Your task to perform on an android device: Open wifi settings Image 0: 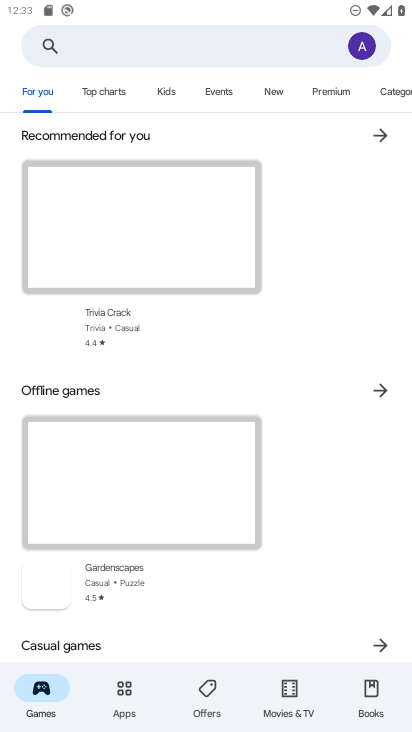
Step 0: press home button
Your task to perform on an android device: Open wifi settings Image 1: 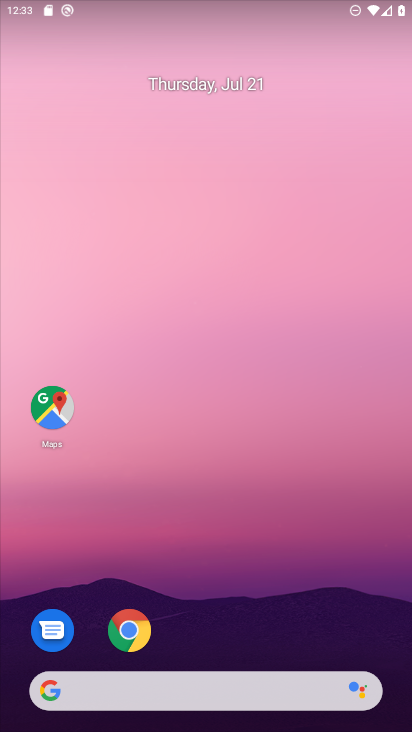
Step 1: drag from (399, 647) to (381, 222)
Your task to perform on an android device: Open wifi settings Image 2: 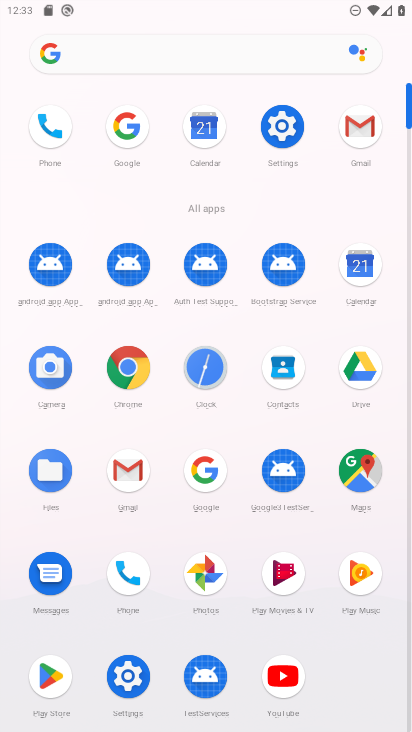
Step 2: click (273, 138)
Your task to perform on an android device: Open wifi settings Image 3: 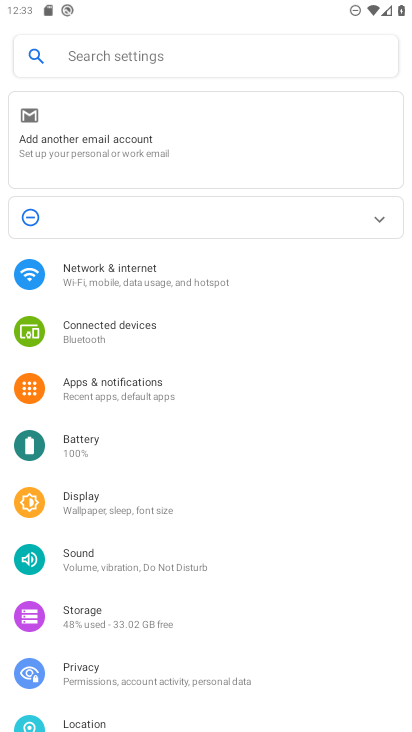
Step 3: click (93, 272)
Your task to perform on an android device: Open wifi settings Image 4: 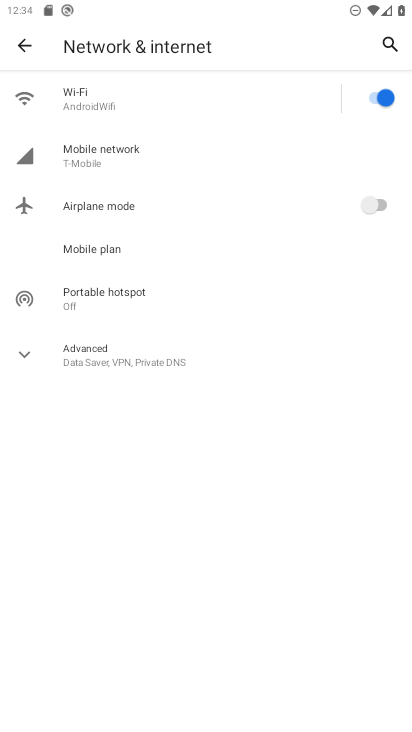
Step 4: click (178, 108)
Your task to perform on an android device: Open wifi settings Image 5: 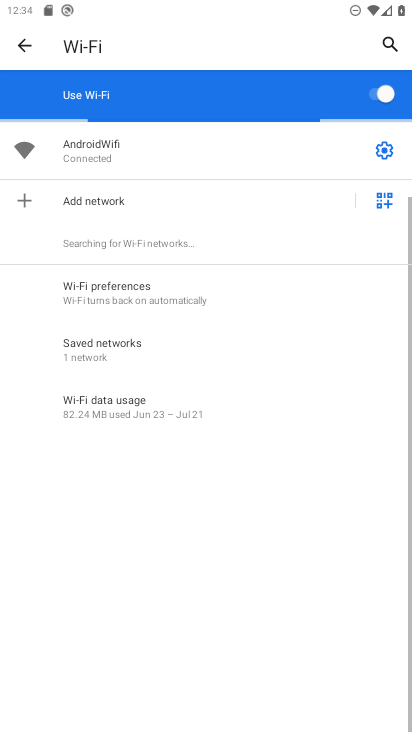
Step 5: click (376, 149)
Your task to perform on an android device: Open wifi settings Image 6: 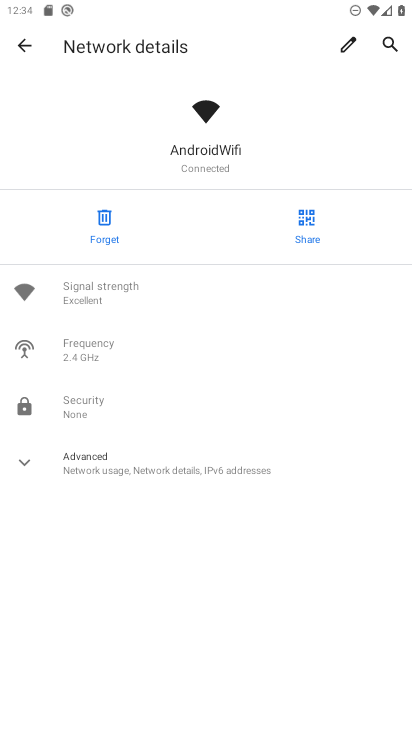
Step 6: task complete